Your task to perform on an android device: turn notification dots on Image 0: 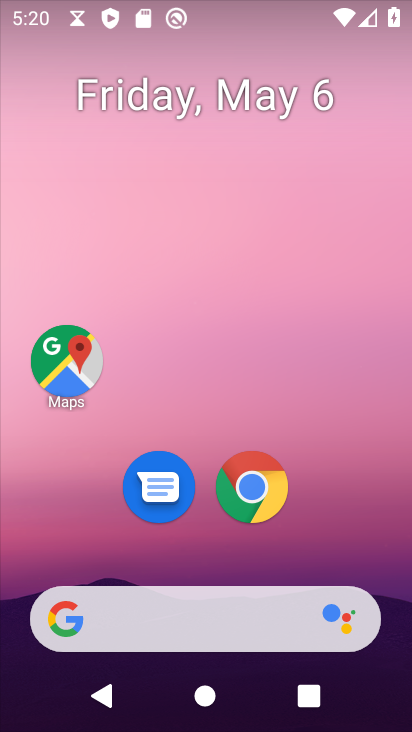
Step 0: drag from (320, 545) to (302, 7)
Your task to perform on an android device: turn notification dots on Image 1: 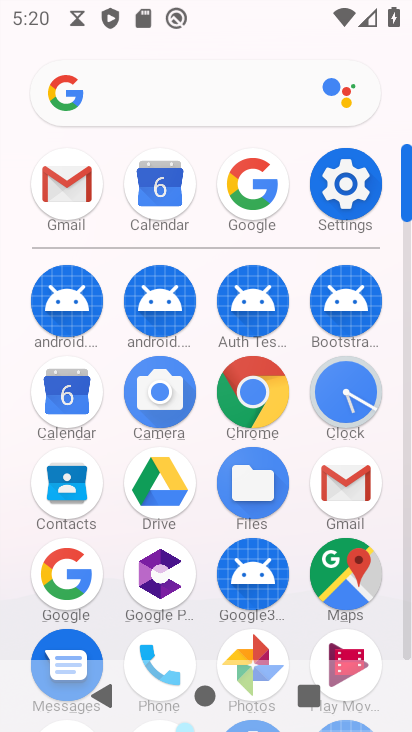
Step 1: click (346, 184)
Your task to perform on an android device: turn notification dots on Image 2: 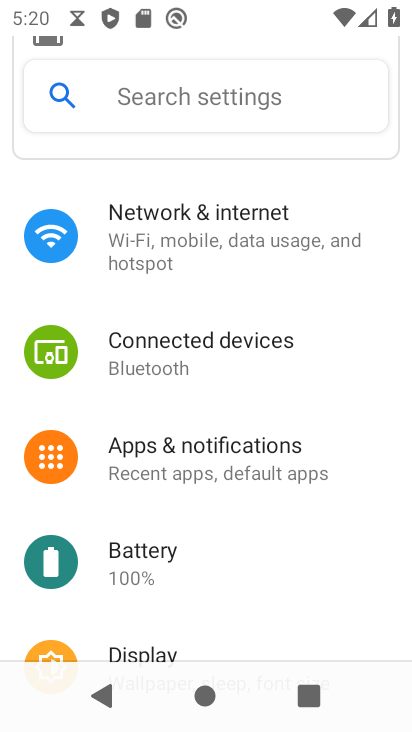
Step 2: drag from (205, 537) to (243, 362)
Your task to perform on an android device: turn notification dots on Image 3: 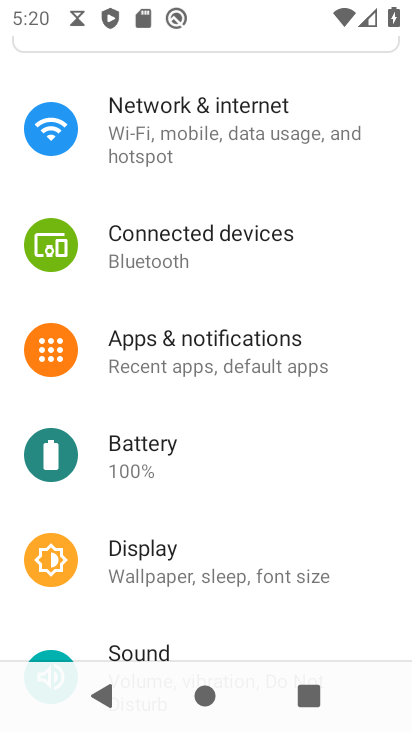
Step 3: click (219, 341)
Your task to perform on an android device: turn notification dots on Image 4: 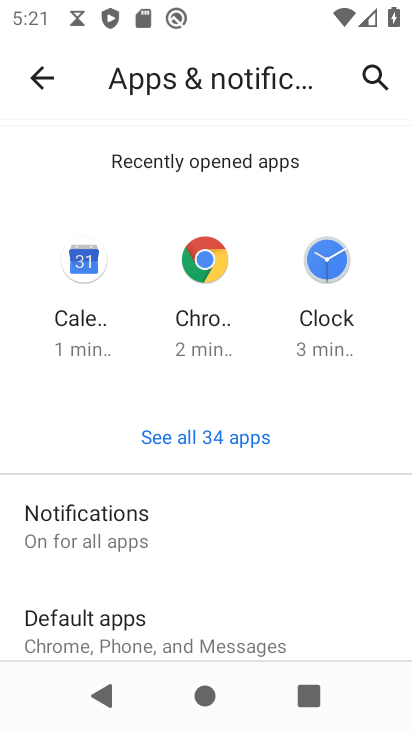
Step 4: click (90, 513)
Your task to perform on an android device: turn notification dots on Image 5: 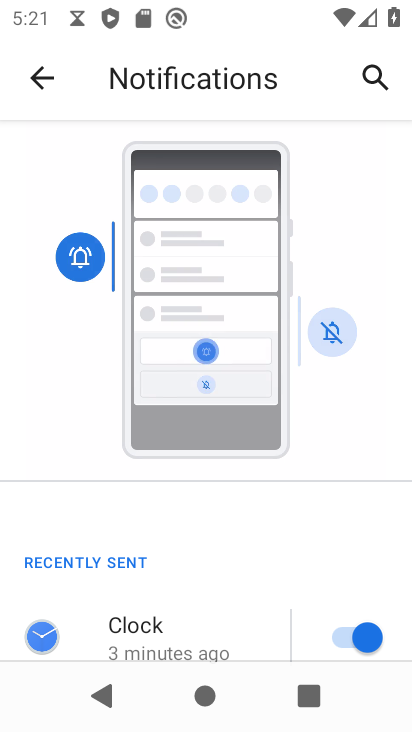
Step 5: drag from (205, 581) to (234, 268)
Your task to perform on an android device: turn notification dots on Image 6: 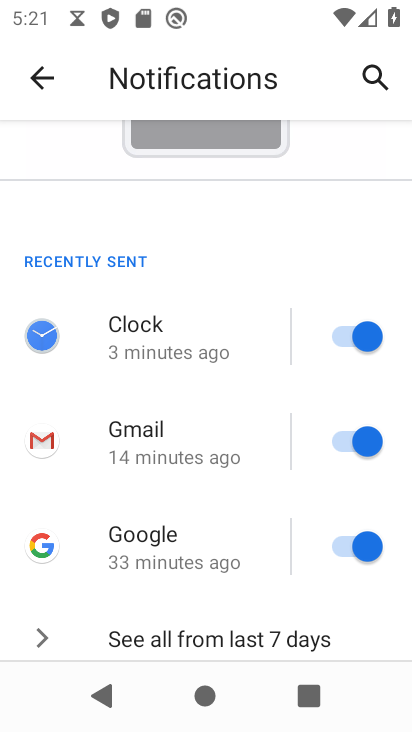
Step 6: drag from (201, 520) to (223, 288)
Your task to perform on an android device: turn notification dots on Image 7: 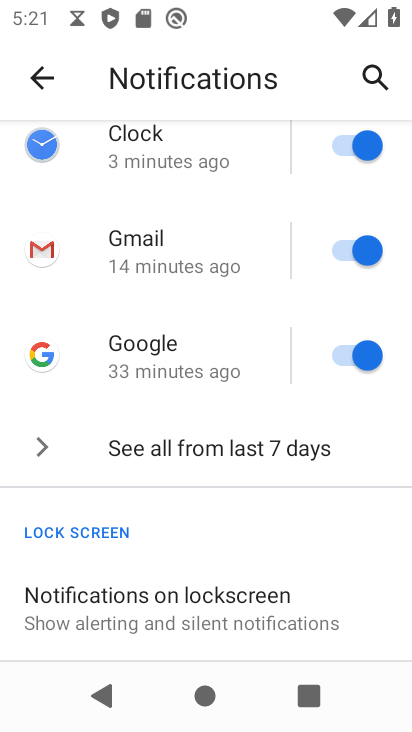
Step 7: drag from (173, 534) to (250, 339)
Your task to perform on an android device: turn notification dots on Image 8: 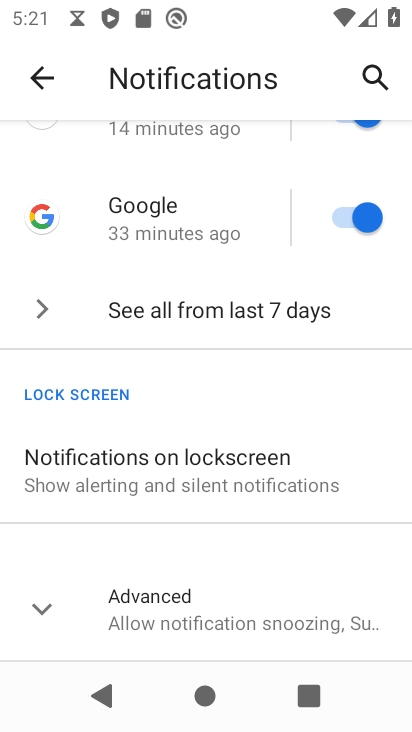
Step 8: click (186, 598)
Your task to perform on an android device: turn notification dots on Image 9: 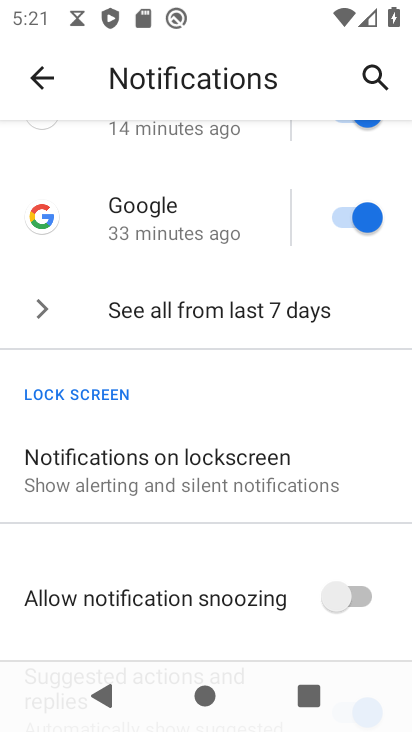
Step 9: task complete